Your task to perform on an android device: Open Google Chrome and click the shortcut for Amazon.com Image 0: 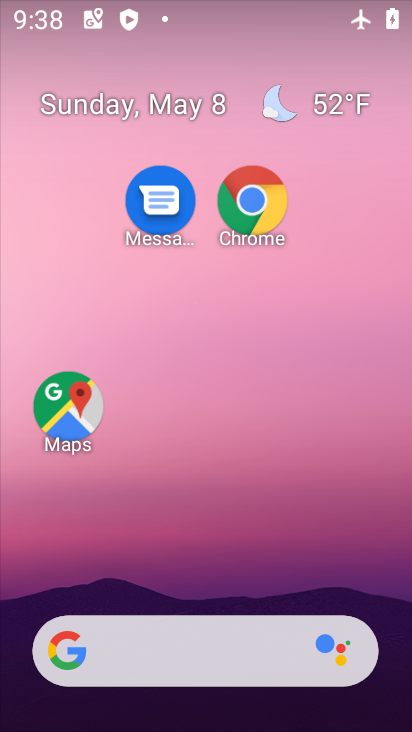
Step 0: drag from (220, 605) to (6, 717)
Your task to perform on an android device: Open Google Chrome and click the shortcut for Amazon.com Image 1: 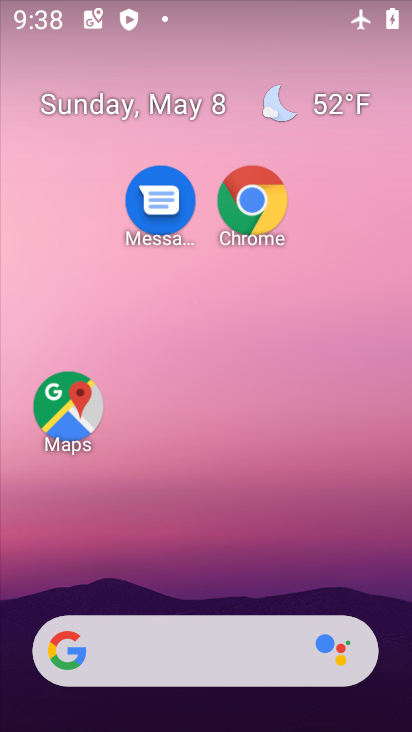
Step 1: click (248, 191)
Your task to perform on an android device: Open Google Chrome and click the shortcut for Amazon.com Image 2: 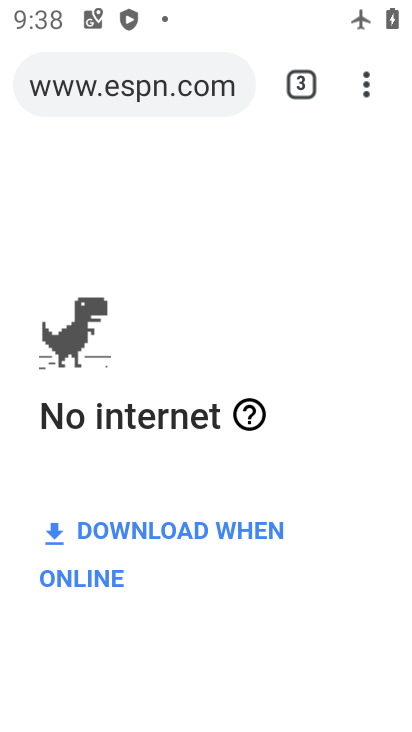
Step 2: click (295, 75)
Your task to perform on an android device: Open Google Chrome and click the shortcut for Amazon.com Image 3: 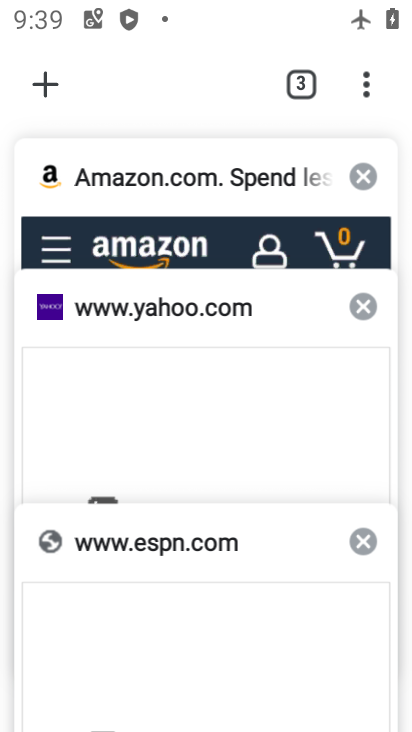
Step 3: click (109, 218)
Your task to perform on an android device: Open Google Chrome and click the shortcut for Amazon.com Image 4: 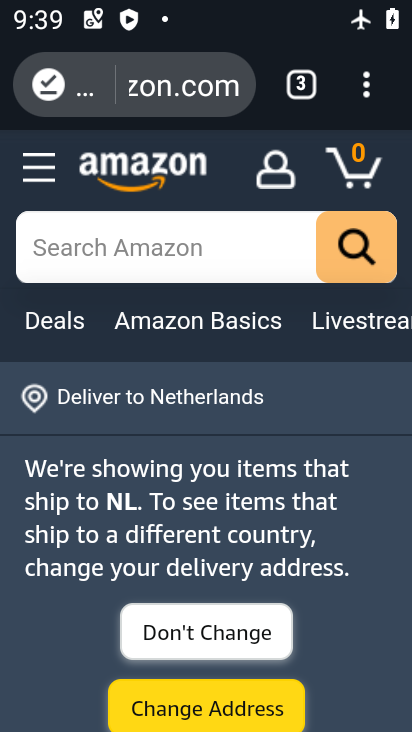
Step 4: task complete